Your task to perform on an android device: Clear all items from cart on costco.com. Image 0: 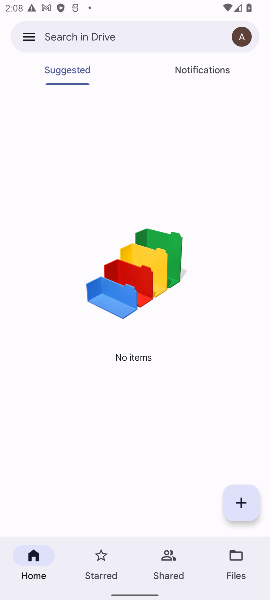
Step 0: press home button
Your task to perform on an android device: Clear all items from cart on costco.com. Image 1: 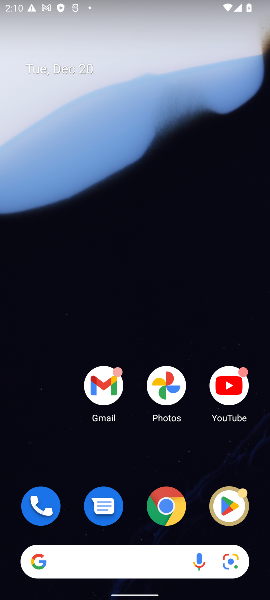
Step 1: click (161, 505)
Your task to perform on an android device: Clear all items from cart on costco.com. Image 2: 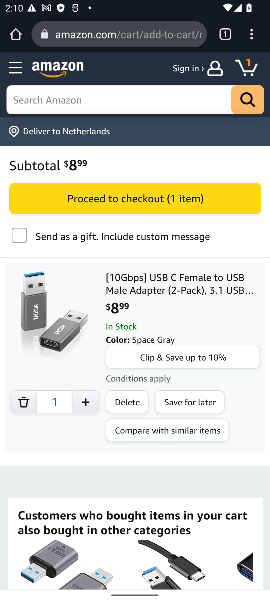
Step 2: click (121, 31)
Your task to perform on an android device: Clear all items from cart on costco.com. Image 3: 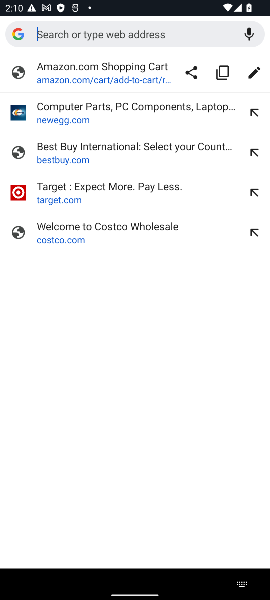
Step 3: click (81, 231)
Your task to perform on an android device: Clear all items from cart on costco.com. Image 4: 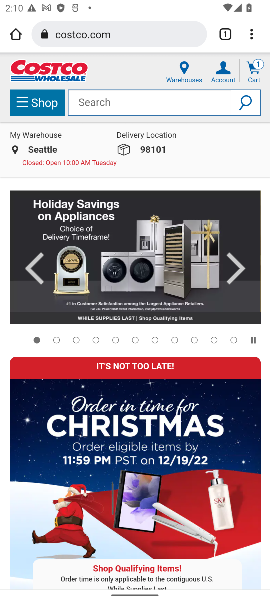
Step 4: click (255, 72)
Your task to perform on an android device: Clear all items from cart on costco.com. Image 5: 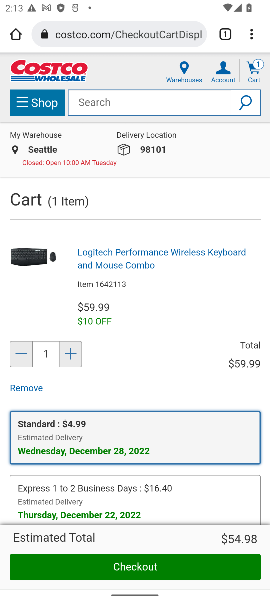
Step 5: click (26, 389)
Your task to perform on an android device: Clear all items from cart on costco.com. Image 6: 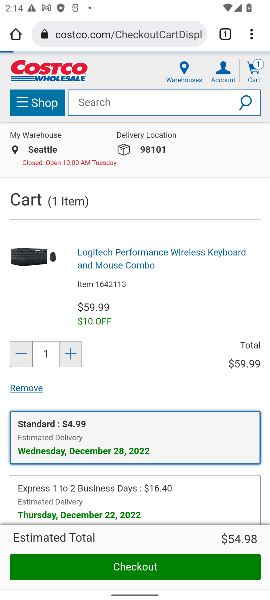
Step 6: task complete